Your task to perform on an android device: install app "Mercado Libre" Image 0: 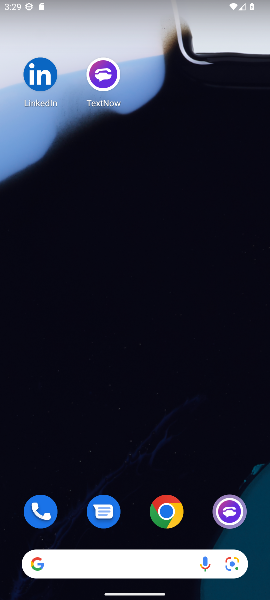
Step 0: drag from (142, 554) to (136, 219)
Your task to perform on an android device: install app "Mercado Libre" Image 1: 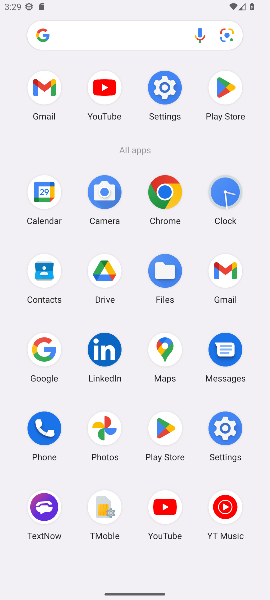
Step 1: click (169, 427)
Your task to perform on an android device: install app "Mercado Libre" Image 2: 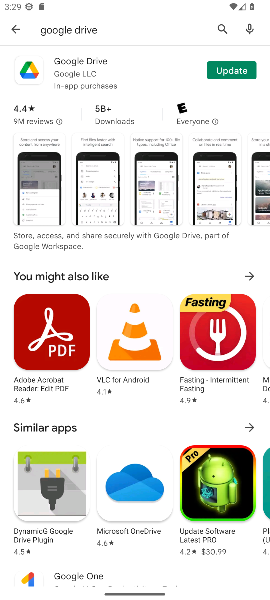
Step 2: click (12, 28)
Your task to perform on an android device: install app "Mercado Libre" Image 3: 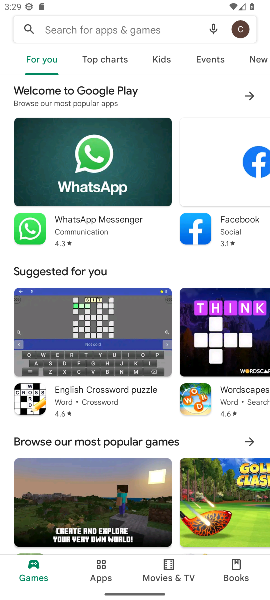
Step 3: click (156, 27)
Your task to perform on an android device: install app "Mercado Libre" Image 4: 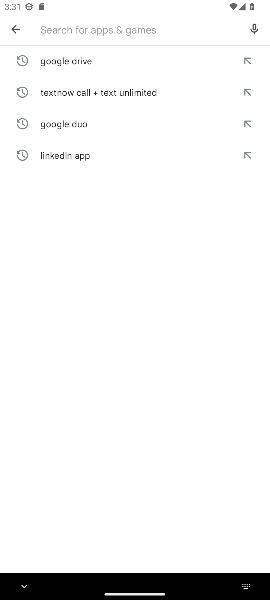
Step 4: type "Mercado Libra"
Your task to perform on an android device: install app "Mercado Libre" Image 5: 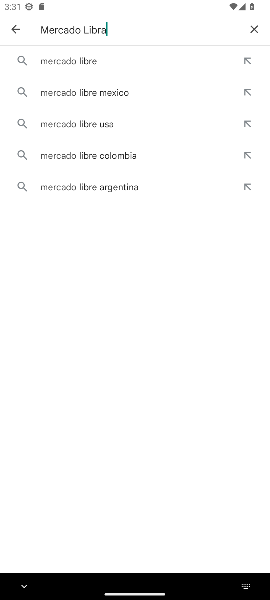
Step 5: click (100, 61)
Your task to perform on an android device: install app "Mercado Libre" Image 6: 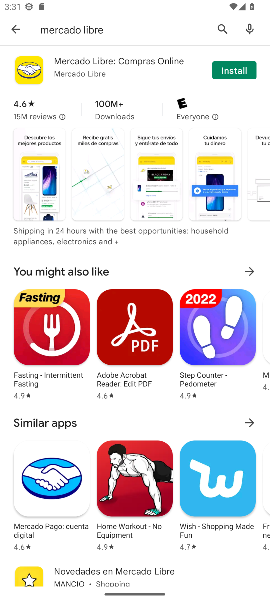
Step 6: click (230, 68)
Your task to perform on an android device: install app "Mercado Libre" Image 7: 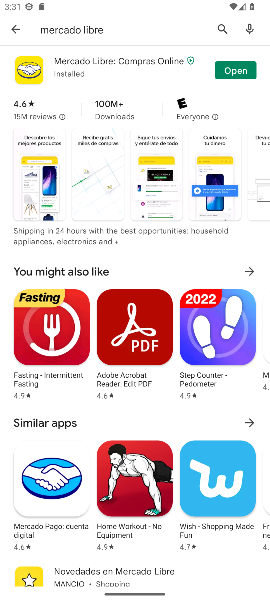
Step 7: click (237, 68)
Your task to perform on an android device: install app "Mercado Libre" Image 8: 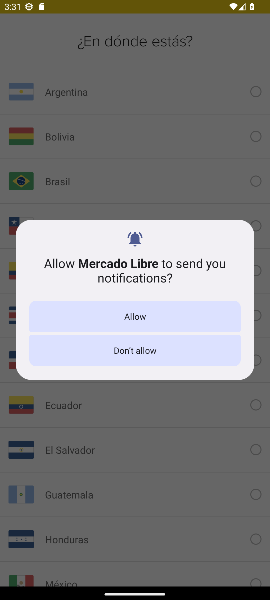
Step 8: task complete